Your task to perform on an android device: Show me recent news Image 0: 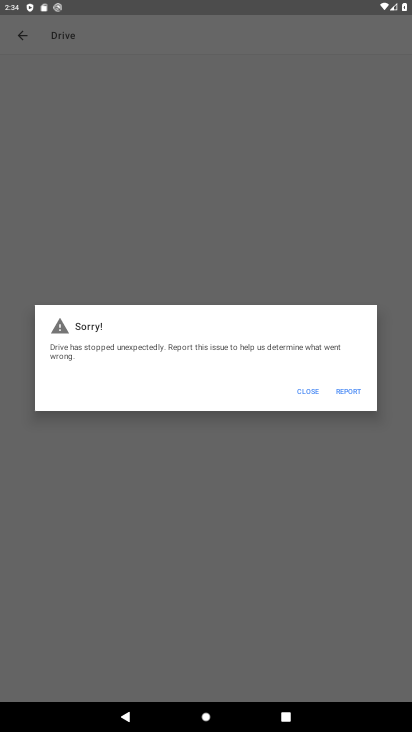
Step 0: press home button
Your task to perform on an android device: Show me recent news Image 1: 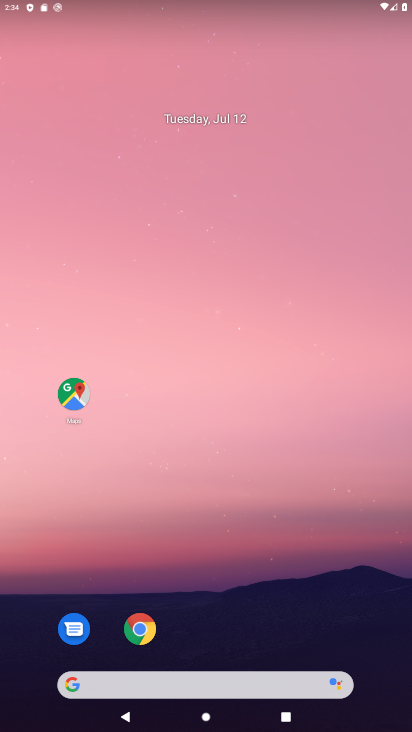
Step 1: drag from (199, 678) to (237, 188)
Your task to perform on an android device: Show me recent news Image 2: 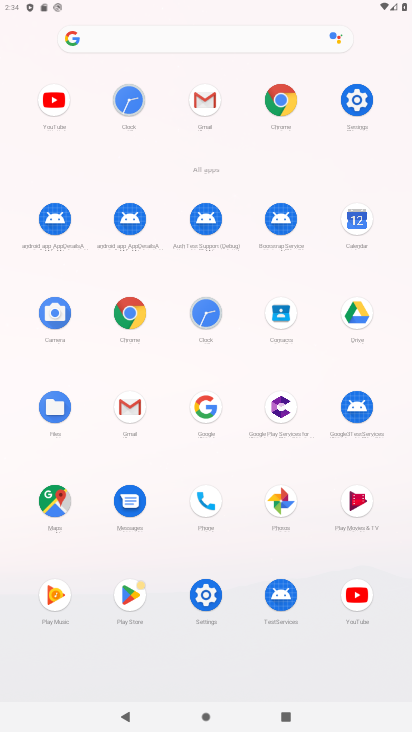
Step 2: click (205, 406)
Your task to perform on an android device: Show me recent news Image 3: 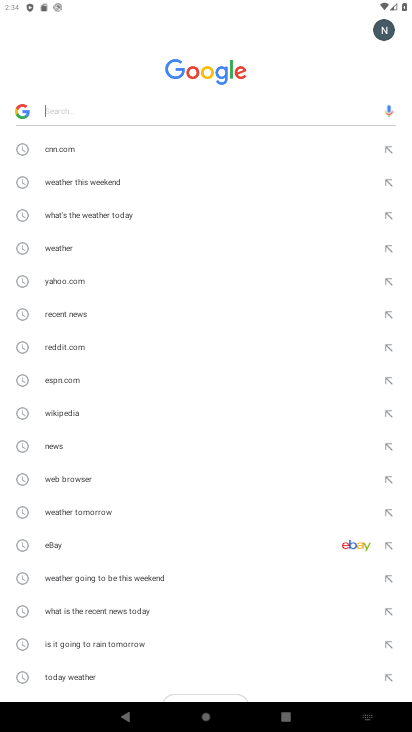
Step 3: click (300, 116)
Your task to perform on an android device: Show me recent news Image 4: 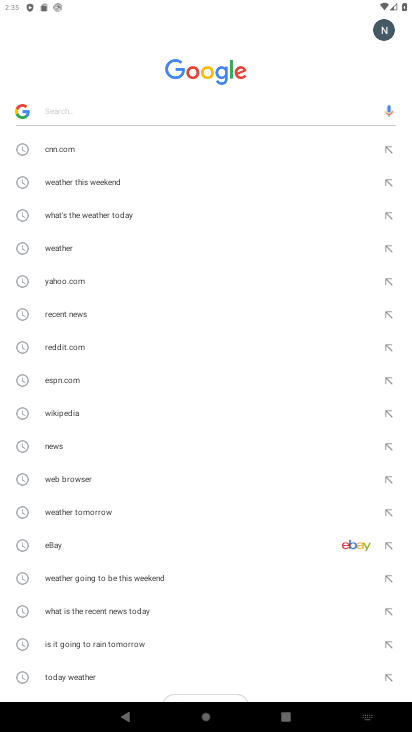
Step 4: type "recent news"
Your task to perform on an android device: Show me recent news Image 5: 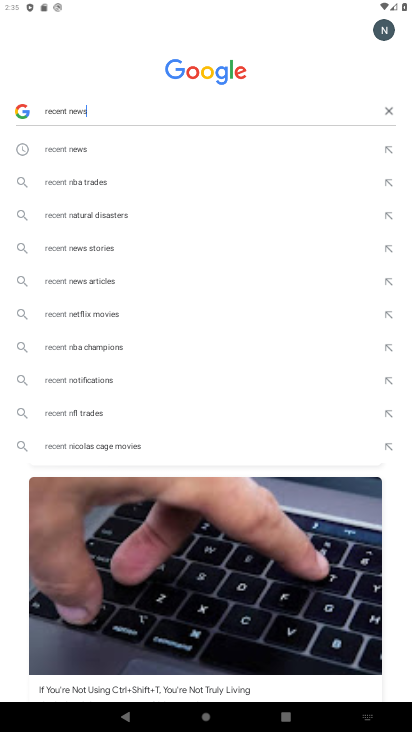
Step 5: type ""
Your task to perform on an android device: Show me recent news Image 6: 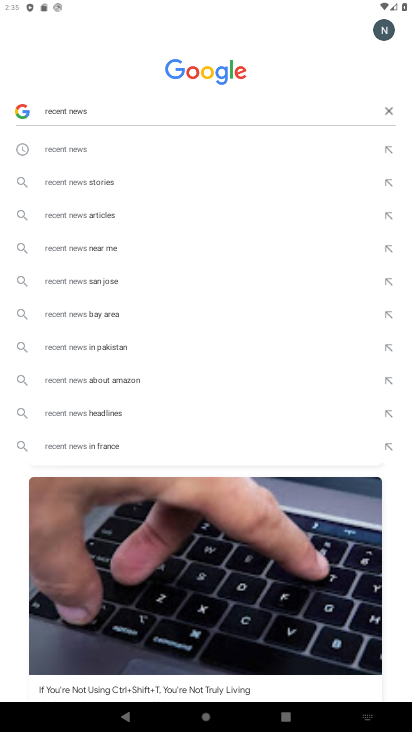
Step 6: click (75, 152)
Your task to perform on an android device: Show me recent news Image 7: 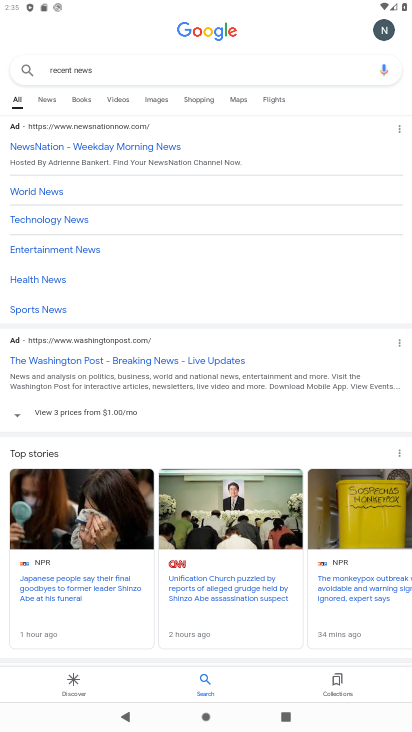
Step 7: click (48, 576)
Your task to perform on an android device: Show me recent news Image 8: 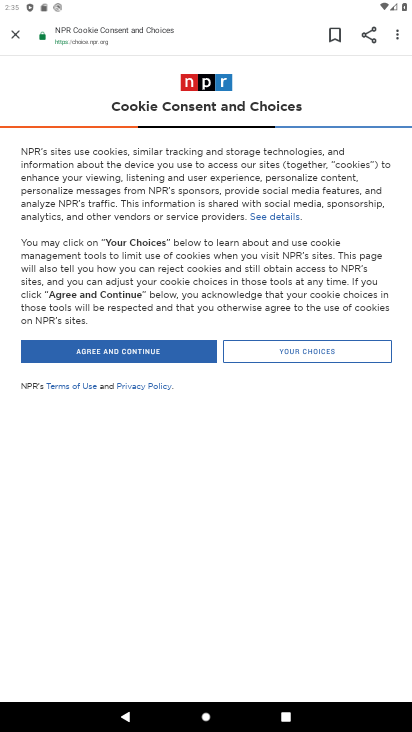
Step 8: click (154, 359)
Your task to perform on an android device: Show me recent news Image 9: 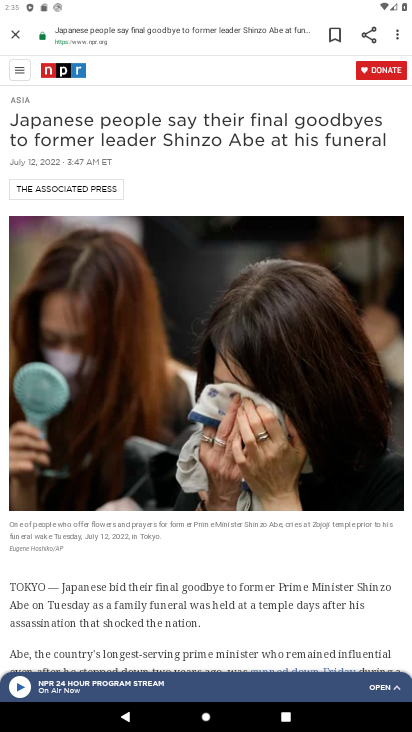
Step 9: task complete